Your task to perform on an android device: Open Reddit.com Image 0: 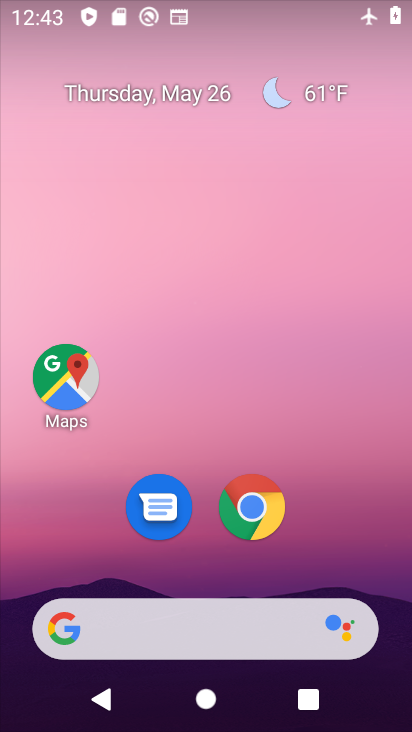
Step 0: click (250, 618)
Your task to perform on an android device: Open Reddit.com Image 1: 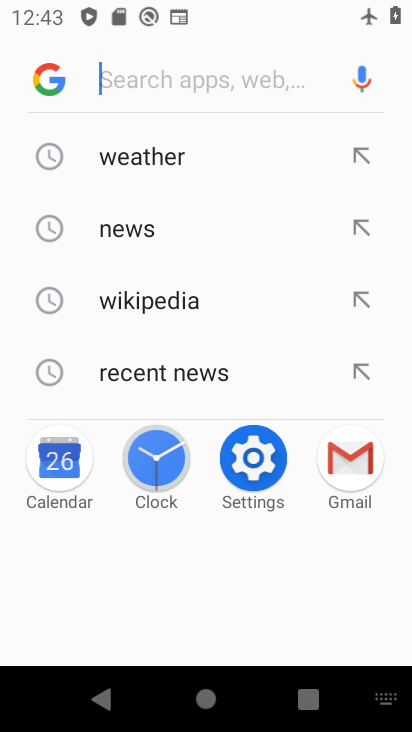
Step 1: type "reddit.com"
Your task to perform on an android device: Open Reddit.com Image 2: 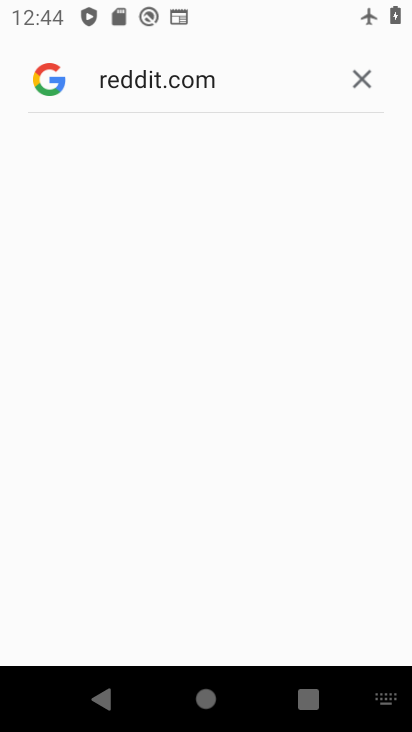
Step 2: task complete